Your task to perform on an android device: Open CNN.com Image 0: 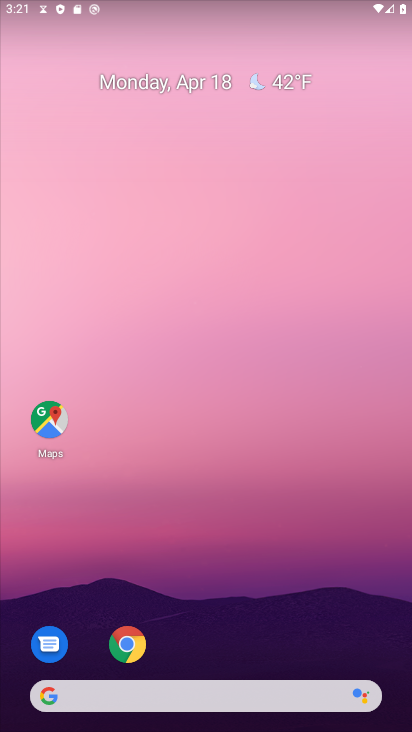
Step 0: drag from (251, 632) to (275, 157)
Your task to perform on an android device: Open CNN.com Image 1: 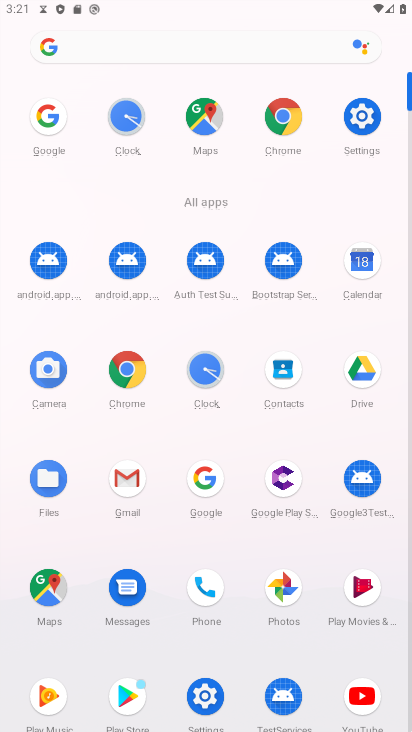
Step 1: click (278, 118)
Your task to perform on an android device: Open CNN.com Image 2: 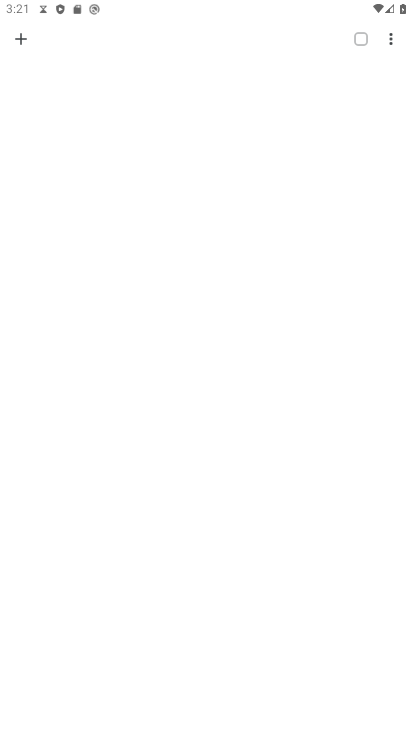
Step 2: click (19, 37)
Your task to perform on an android device: Open CNN.com Image 3: 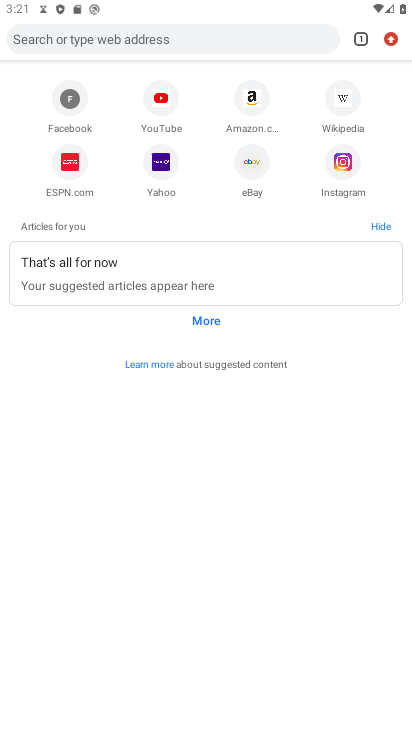
Step 3: click (150, 34)
Your task to perform on an android device: Open CNN.com Image 4: 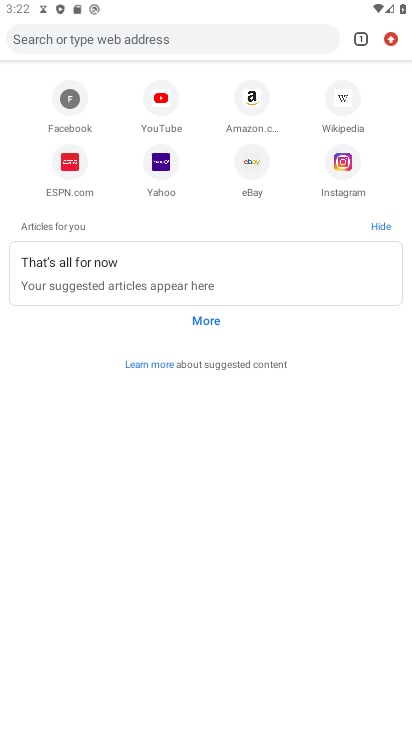
Step 4: click (151, 41)
Your task to perform on an android device: Open CNN.com Image 5: 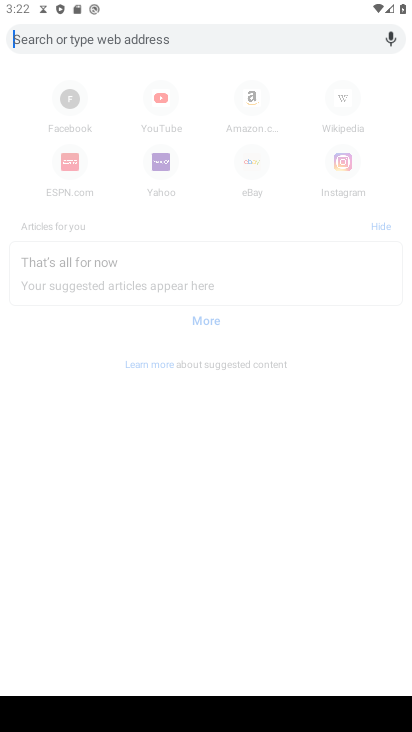
Step 5: type "CNN.com"
Your task to perform on an android device: Open CNN.com Image 6: 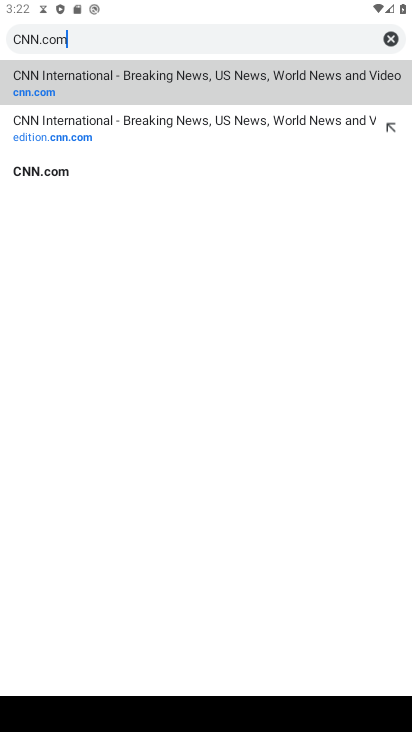
Step 6: click (177, 76)
Your task to perform on an android device: Open CNN.com Image 7: 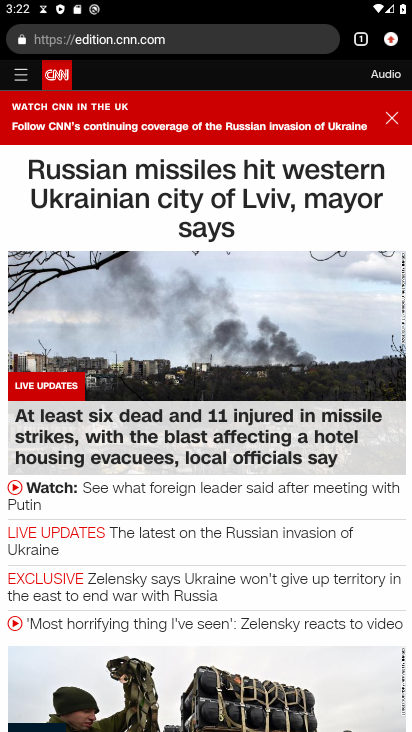
Step 7: task complete